Your task to perform on an android device: Open Chrome and go to settings Image 0: 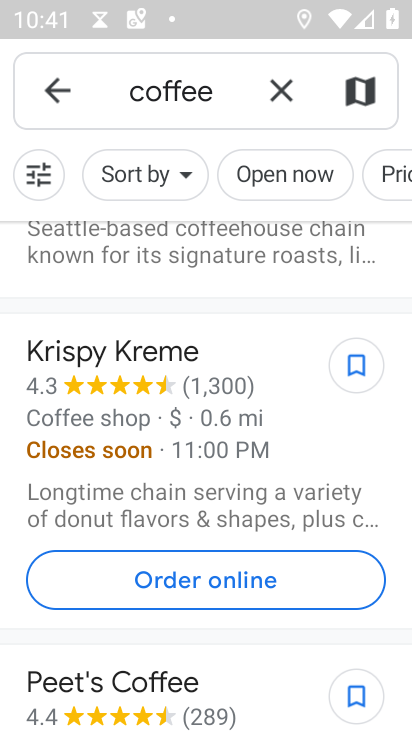
Step 0: press home button
Your task to perform on an android device: Open Chrome and go to settings Image 1: 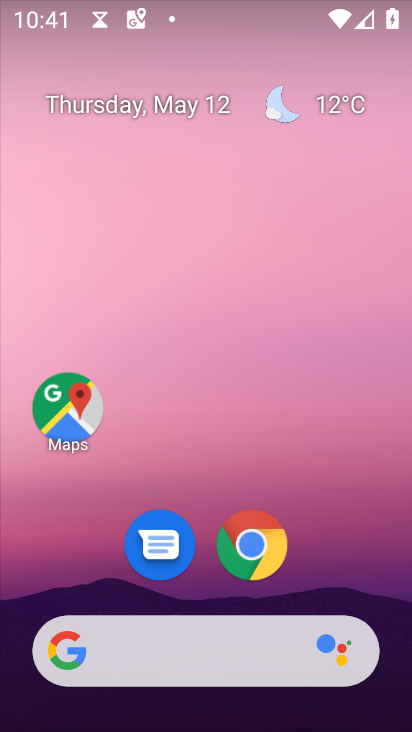
Step 1: click (247, 549)
Your task to perform on an android device: Open Chrome and go to settings Image 2: 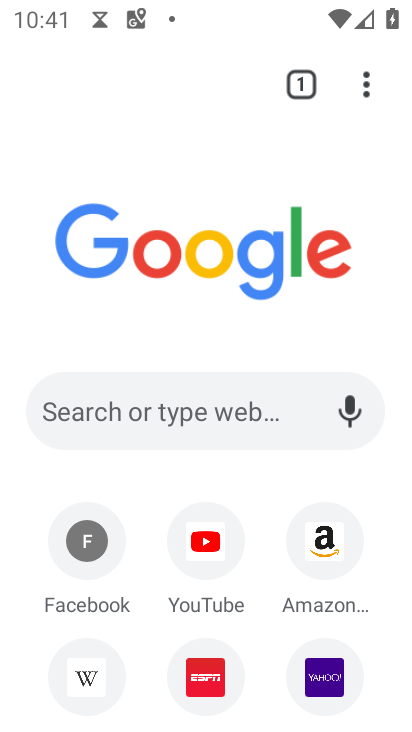
Step 2: click (374, 82)
Your task to perform on an android device: Open Chrome and go to settings Image 3: 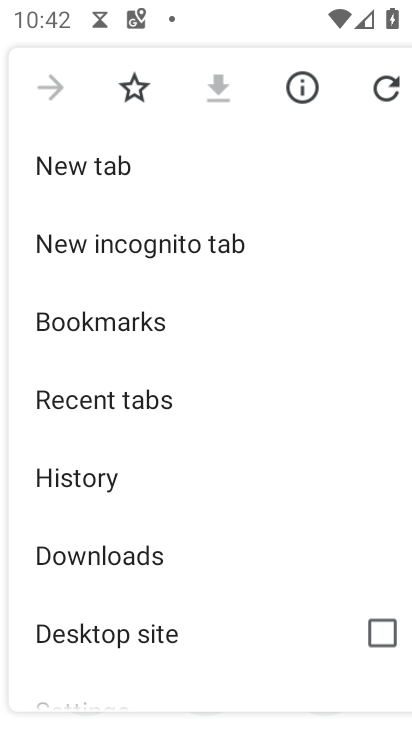
Step 3: drag from (186, 611) to (215, 175)
Your task to perform on an android device: Open Chrome and go to settings Image 4: 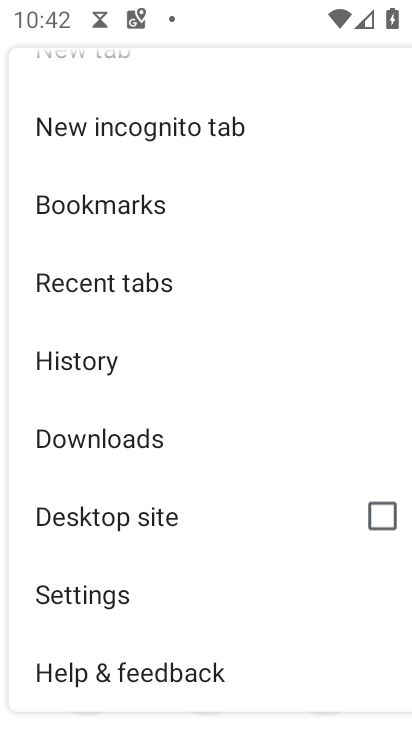
Step 4: click (130, 593)
Your task to perform on an android device: Open Chrome and go to settings Image 5: 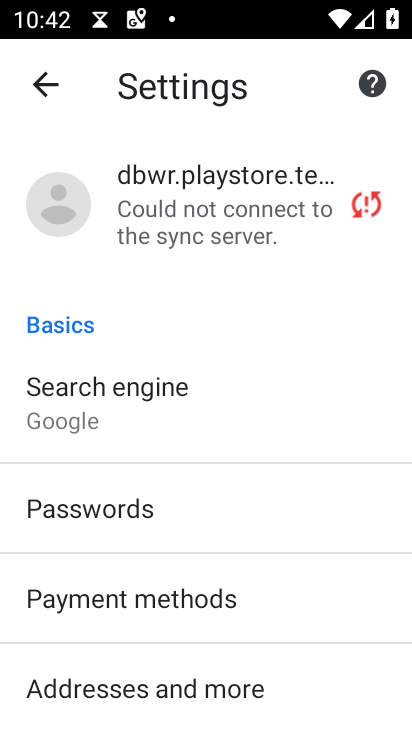
Step 5: task complete